Your task to perform on an android device: Go to Wikipedia Image 0: 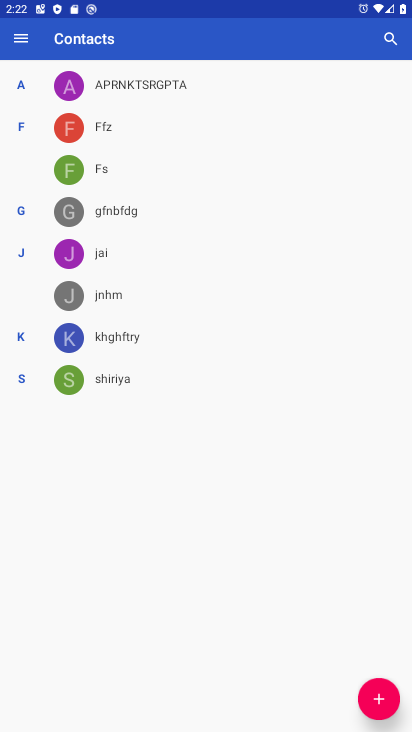
Step 0: press home button
Your task to perform on an android device: Go to Wikipedia Image 1: 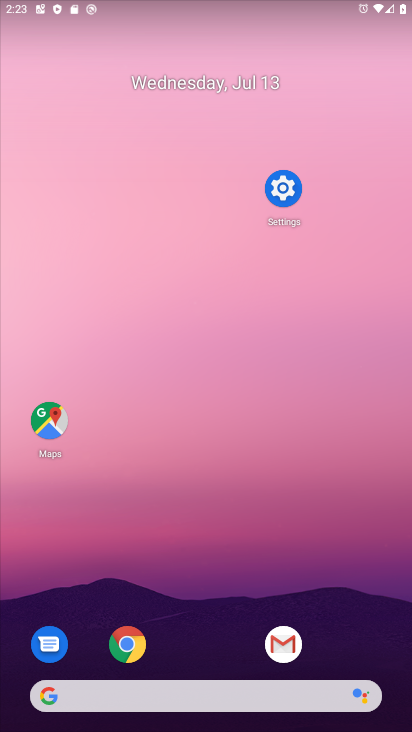
Step 1: drag from (251, 721) to (214, 314)
Your task to perform on an android device: Go to Wikipedia Image 2: 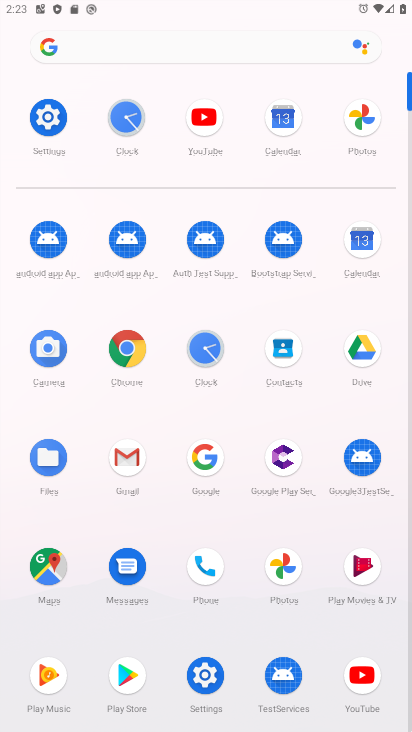
Step 2: click (119, 357)
Your task to perform on an android device: Go to Wikipedia Image 3: 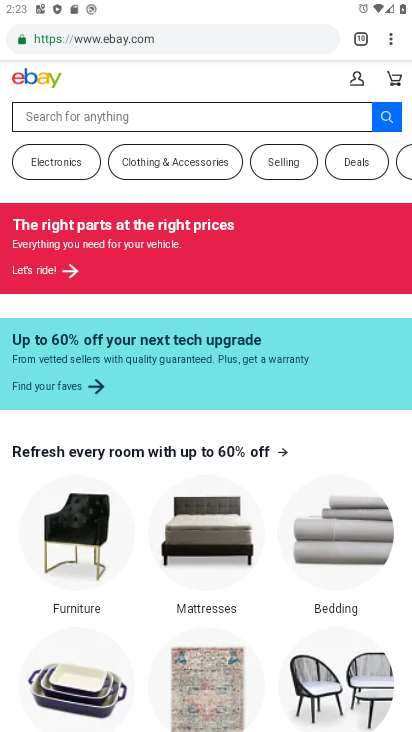
Step 3: click (360, 45)
Your task to perform on an android device: Go to Wikipedia Image 4: 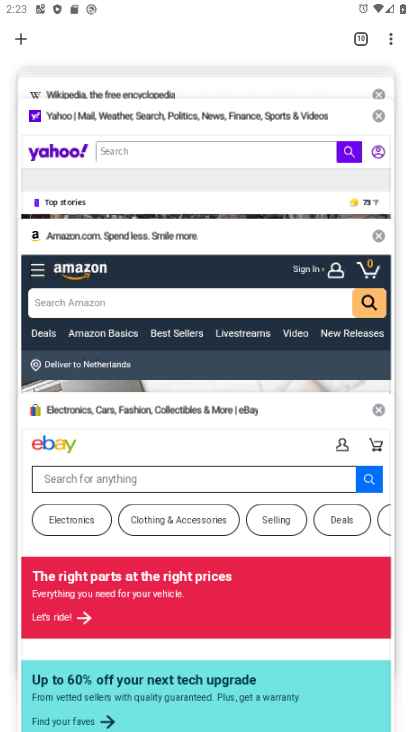
Step 4: click (16, 38)
Your task to perform on an android device: Go to Wikipedia Image 5: 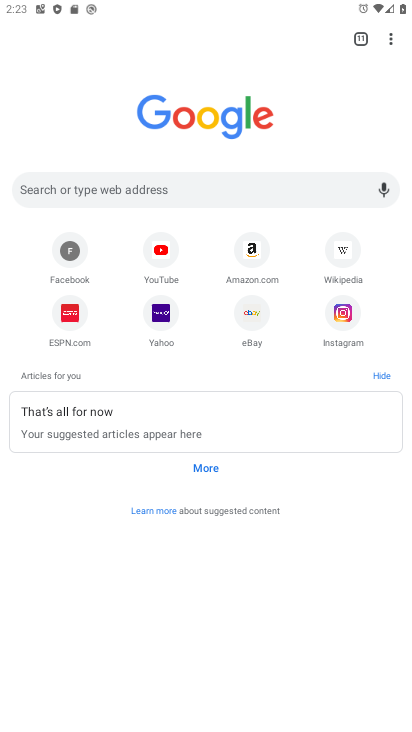
Step 5: click (338, 253)
Your task to perform on an android device: Go to Wikipedia Image 6: 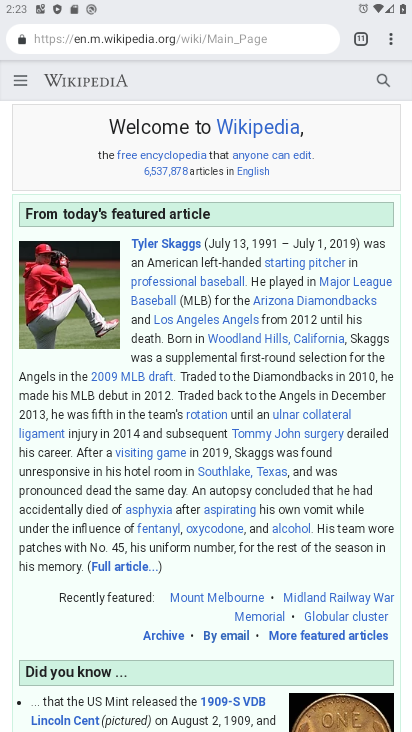
Step 6: task complete